Your task to perform on an android device: Empty the shopping cart on walmart.com. Search for "macbook pro 15 inch" on walmart.com, select the first entry, and add it to the cart. Image 0: 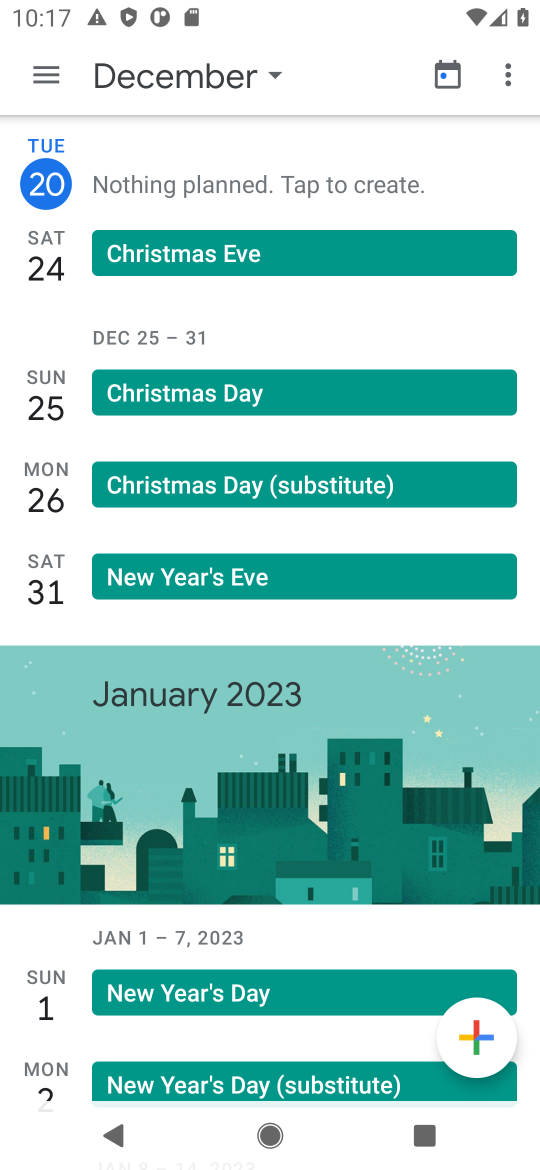
Step 0: press home button
Your task to perform on an android device: Empty the shopping cart on walmart.com. Search for "macbook pro 15 inch" on walmart.com, select the first entry, and add it to the cart. Image 1: 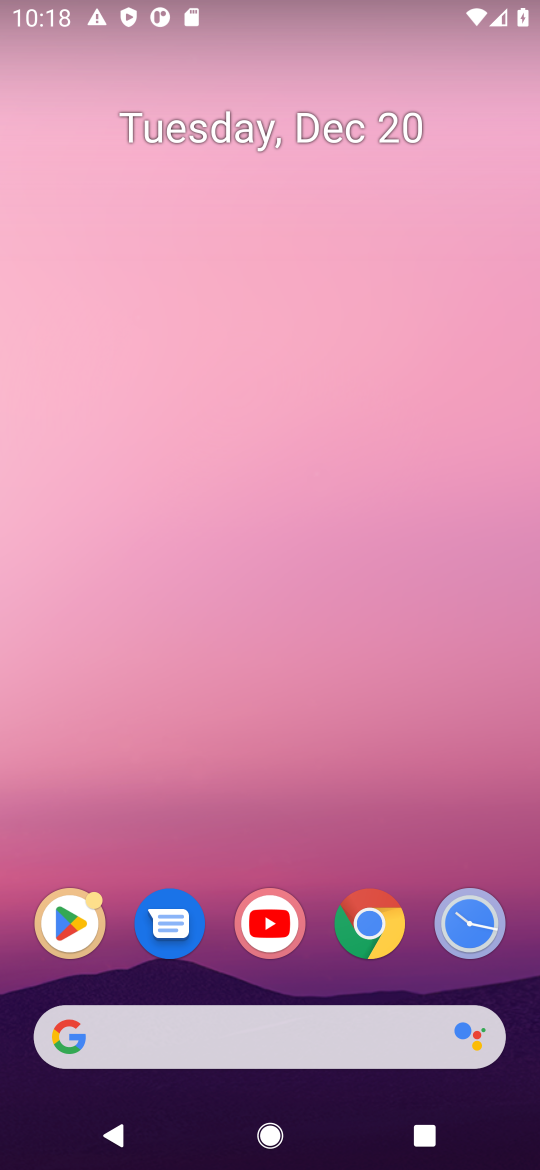
Step 1: click (240, 1016)
Your task to perform on an android device: Empty the shopping cart on walmart.com. Search for "macbook pro 15 inch" on walmart.com, select the first entry, and add it to the cart. Image 2: 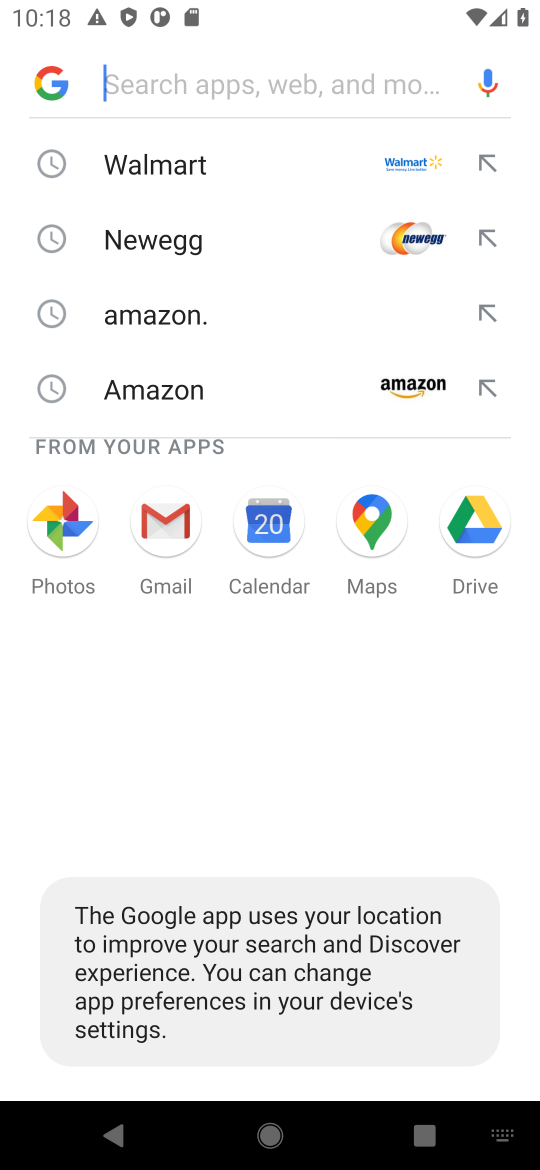
Step 2: click (148, 162)
Your task to perform on an android device: Empty the shopping cart on walmart.com. Search for "macbook pro 15 inch" on walmart.com, select the first entry, and add it to the cart. Image 3: 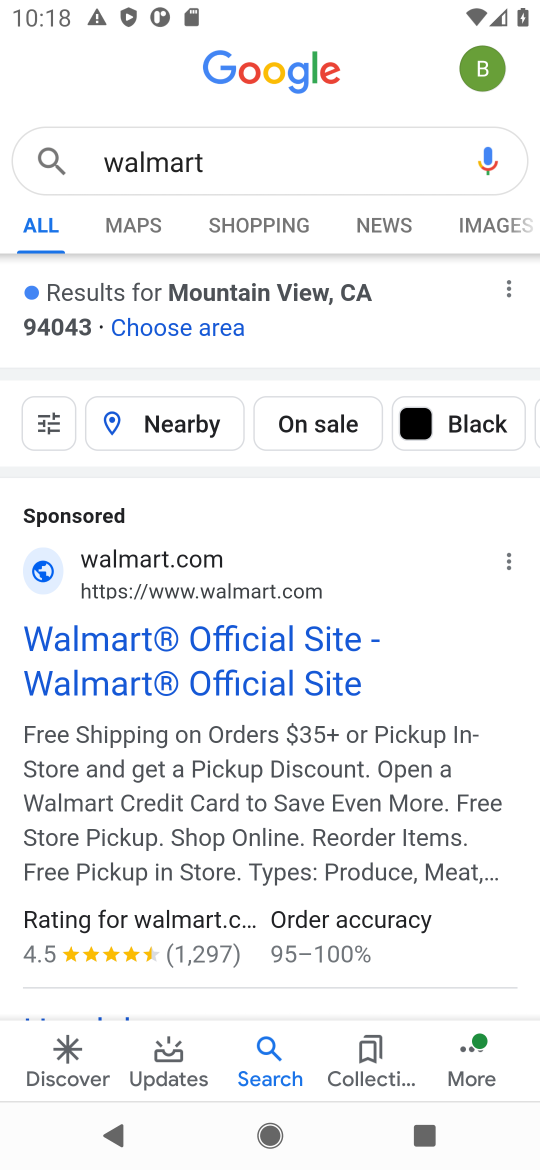
Step 3: click (155, 642)
Your task to perform on an android device: Empty the shopping cart on walmart.com. Search for "macbook pro 15 inch" on walmart.com, select the first entry, and add it to the cart. Image 4: 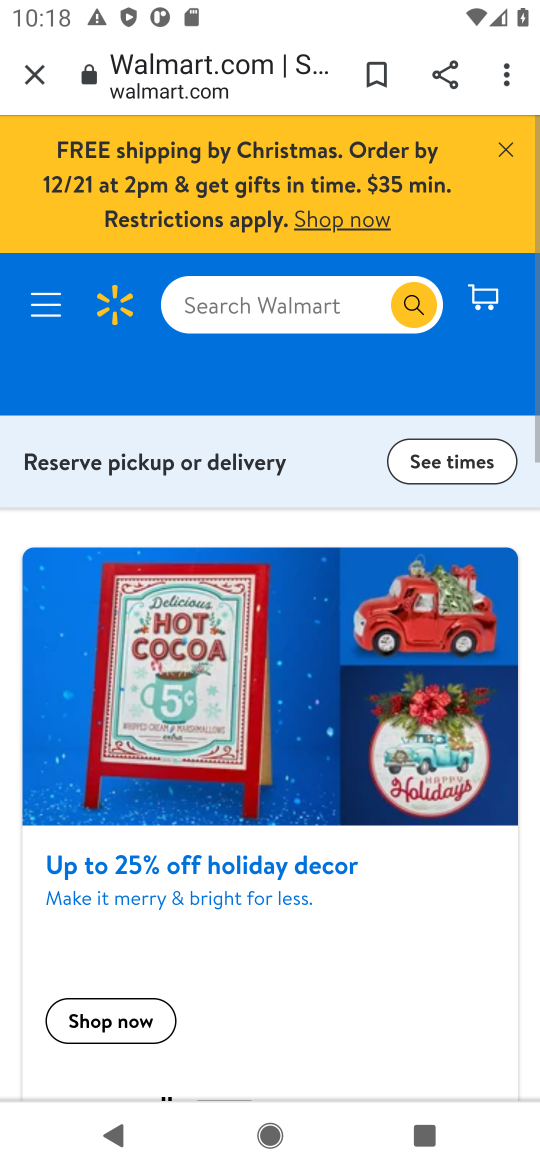
Step 4: click (500, 158)
Your task to perform on an android device: Empty the shopping cart on walmart.com. Search for "macbook pro 15 inch" on walmart.com, select the first entry, and add it to the cart. Image 5: 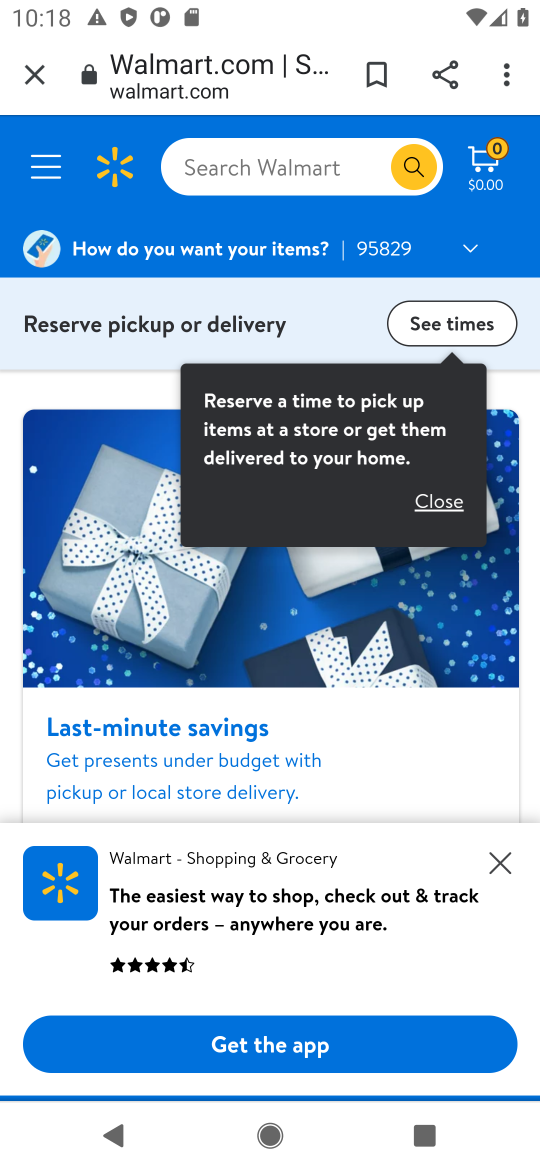
Step 5: click (443, 504)
Your task to perform on an android device: Empty the shopping cart on walmart.com. Search for "macbook pro 15 inch" on walmart.com, select the first entry, and add it to the cart. Image 6: 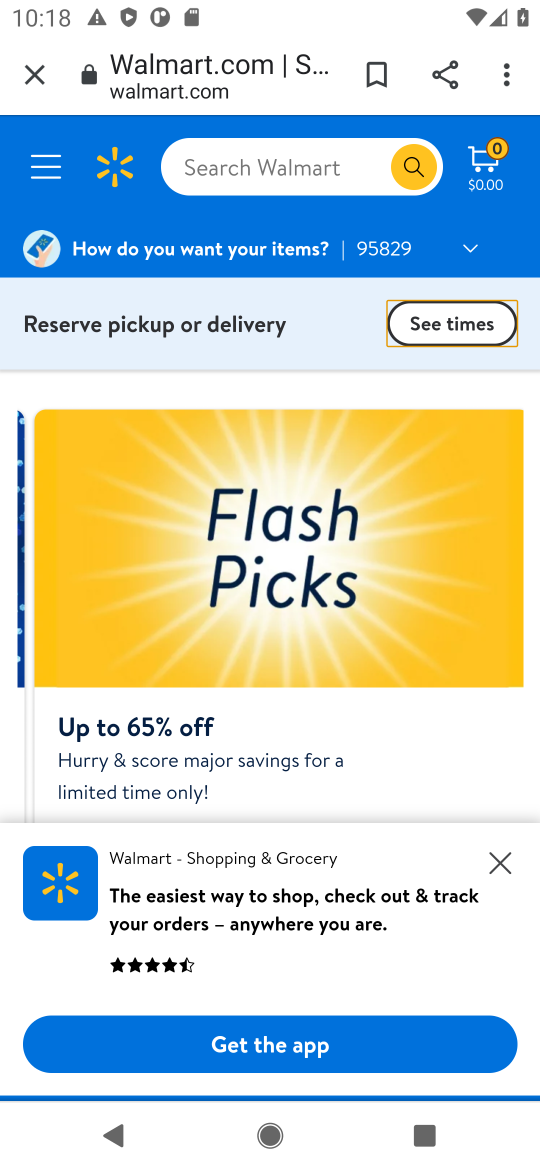
Step 6: click (310, 148)
Your task to perform on an android device: Empty the shopping cart on walmart.com. Search for "macbook pro 15 inch" on walmart.com, select the first entry, and add it to the cart. Image 7: 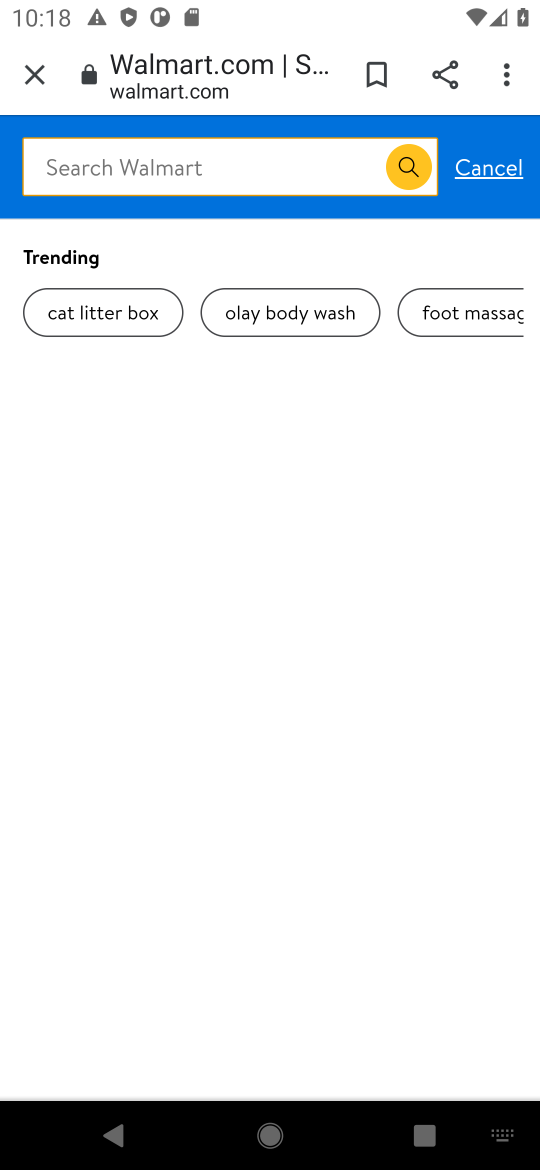
Step 7: type "macbook pro 15"
Your task to perform on an android device: Empty the shopping cart on walmart.com. Search for "macbook pro 15 inch" on walmart.com, select the first entry, and add it to the cart. Image 8: 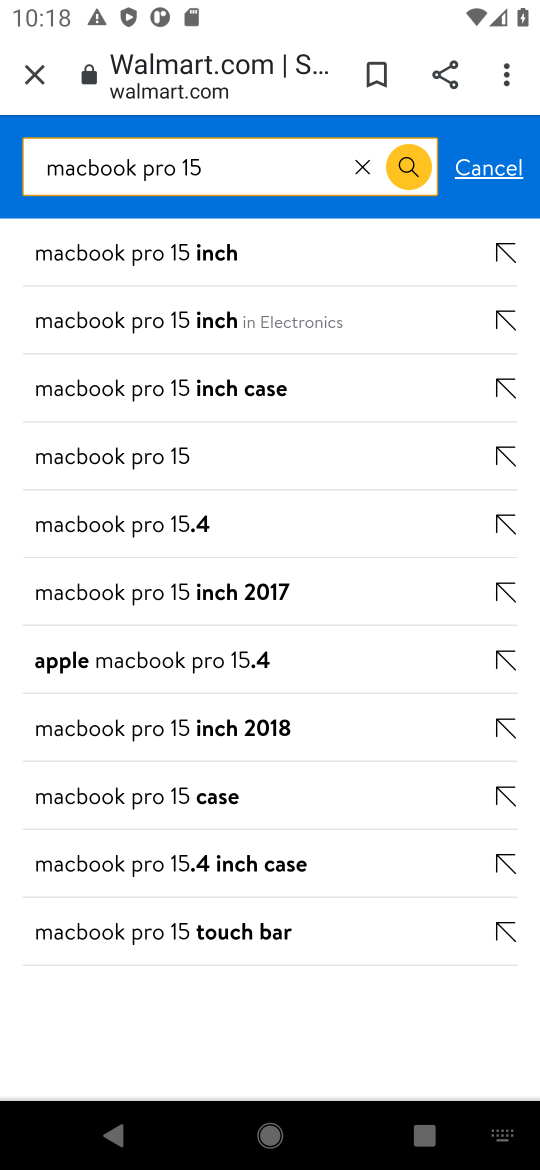
Step 8: click (151, 457)
Your task to perform on an android device: Empty the shopping cart on walmart.com. Search for "macbook pro 15 inch" on walmart.com, select the first entry, and add it to the cart. Image 9: 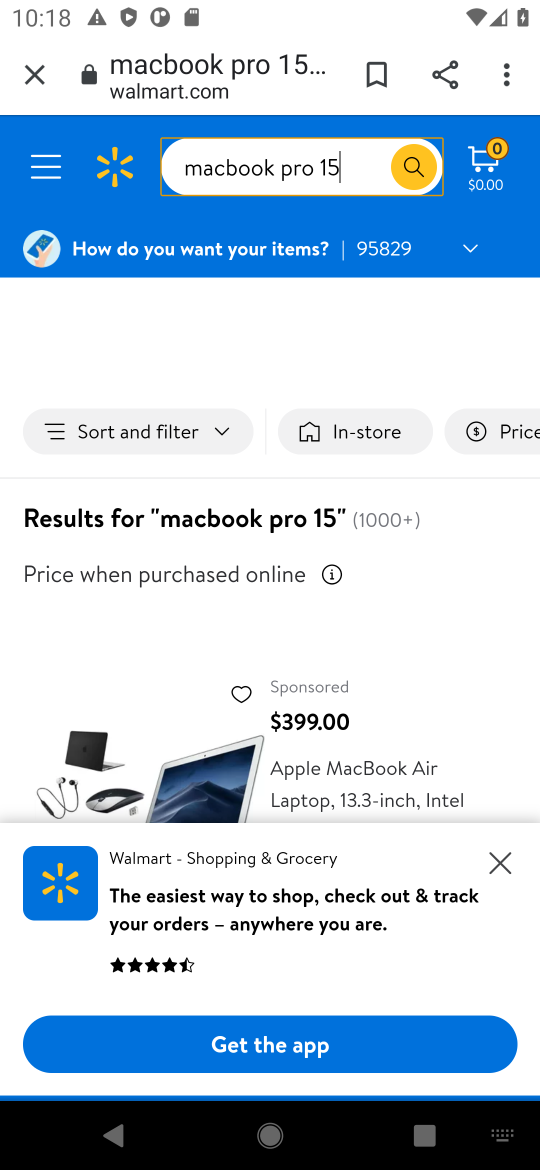
Step 9: click (504, 861)
Your task to perform on an android device: Empty the shopping cart on walmart.com. Search for "macbook pro 15 inch" on walmart.com, select the first entry, and add it to the cart. Image 10: 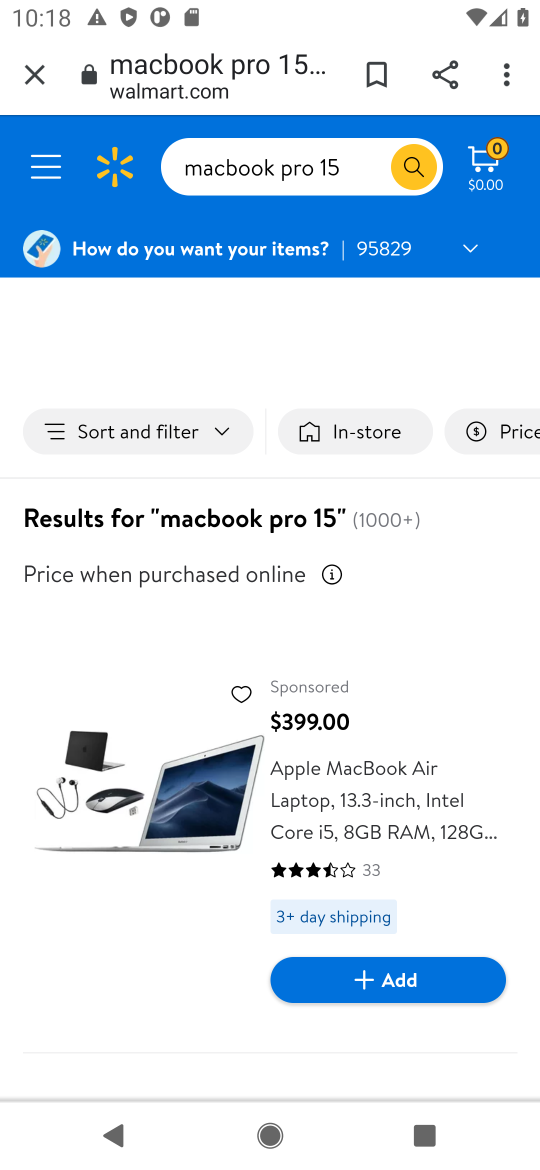
Step 10: click (370, 970)
Your task to perform on an android device: Empty the shopping cart on walmart.com. Search for "macbook pro 15 inch" on walmart.com, select the first entry, and add it to the cart. Image 11: 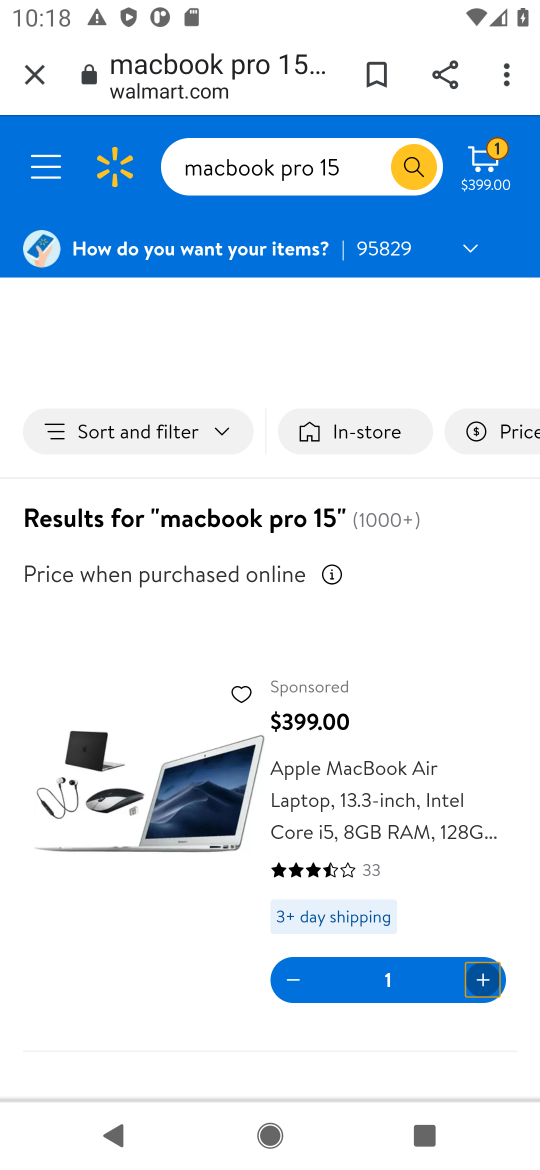
Step 11: task complete